Your task to perform on an android device: choose inbox layout in the gmail app Image 0: 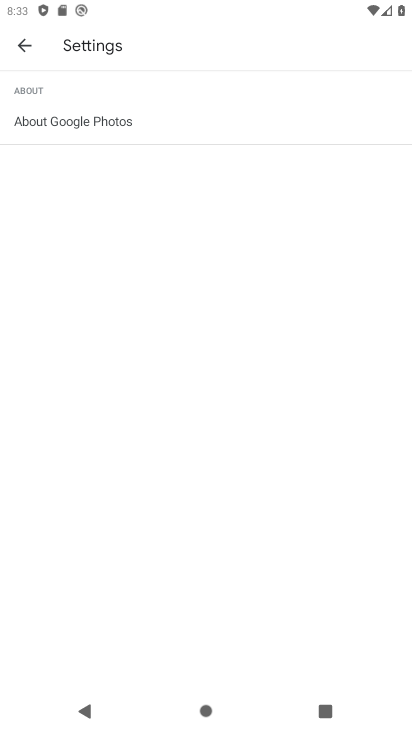
Step 0: drag from (185, 600) to (242, 104)
Your task to perform on an android device: choose inbox layout in the gmail app Image 1: 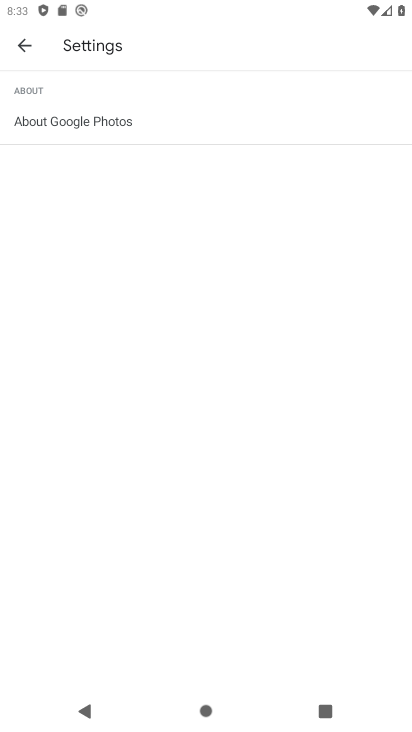
Step 1: press home button
Your task to perform on an android device: choose inbox layout in the gmail app Image 2: 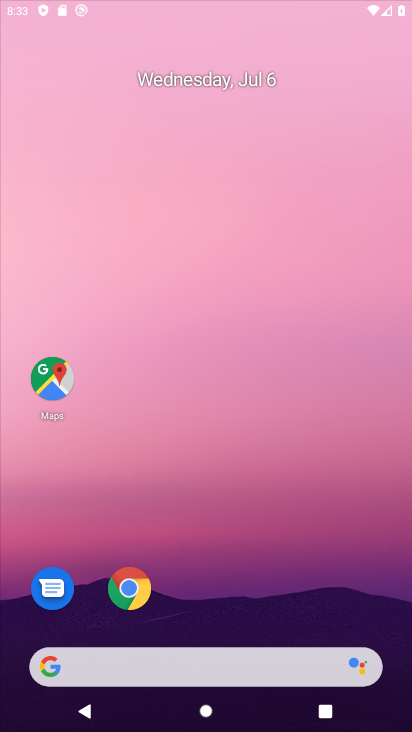
Step 2: drag from (130, 622) to (180, 179)
Your task to perform on an android device: choose inbox layout in the gmail app Image 3: 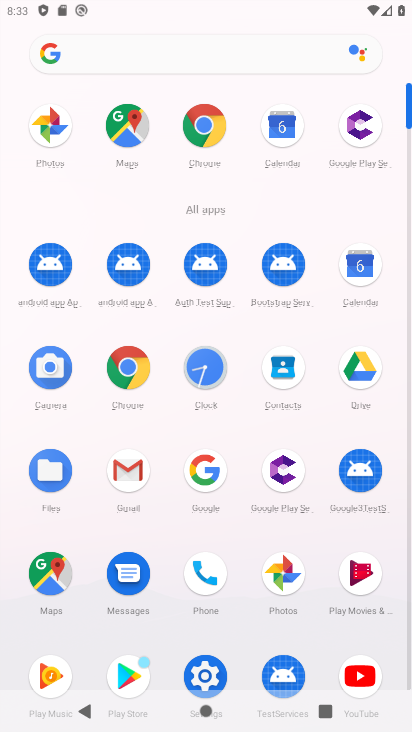
Step 3: click (114, 470)
Your task to perform on an android device: choose inbox layout in the gmail app Image 4: 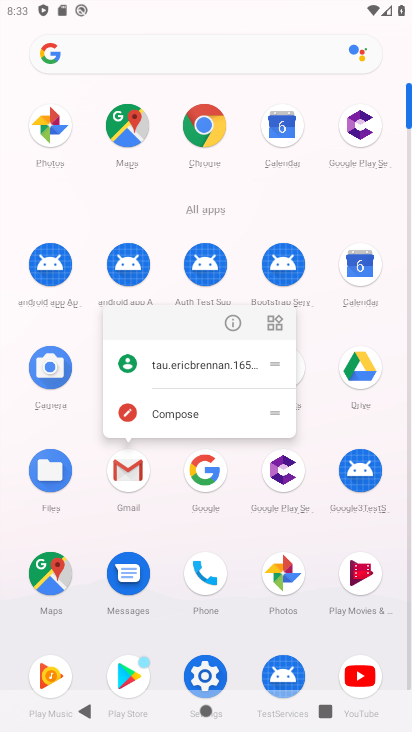
Step 4: click (234, 327)
Your task to perform on an android device: choose inbox layout in the gmail app Image 5: 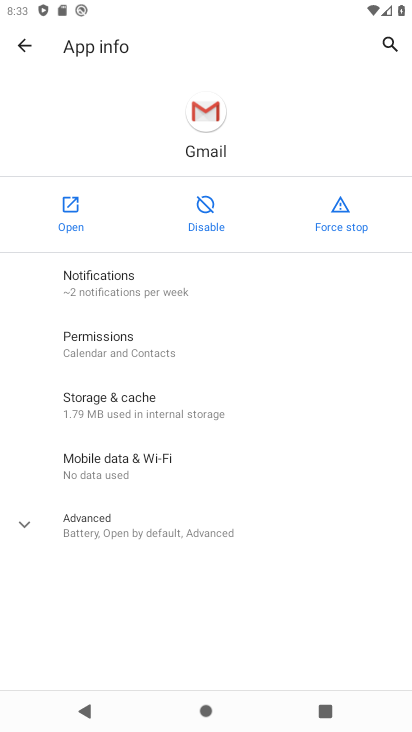
Step 5: click (70, 226)
Your task to perform on an android device: choose inbox layout in the gmail app Image 6: 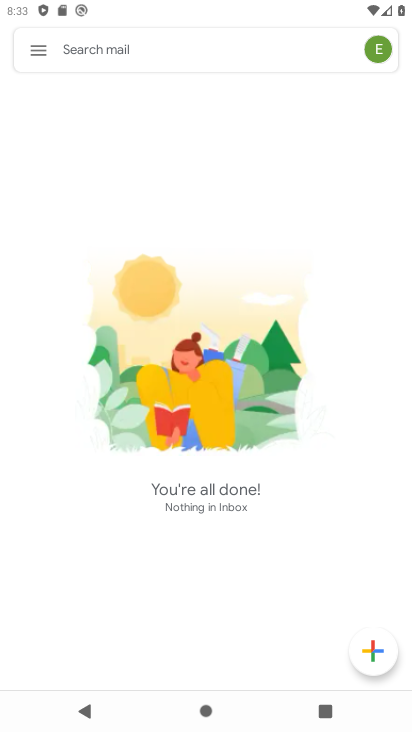
Step 6: click (44, 42)
Your task to perform on an android device: choose inbox layout in the gmail app Image 7: 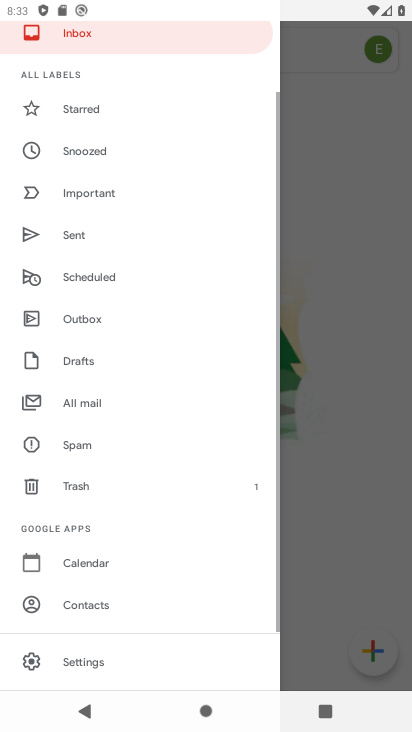
Step 7: drag from (83, 107) to (55, 680)
Your task to perform on an android device: choose inbox layout in the gmail app Image 8: 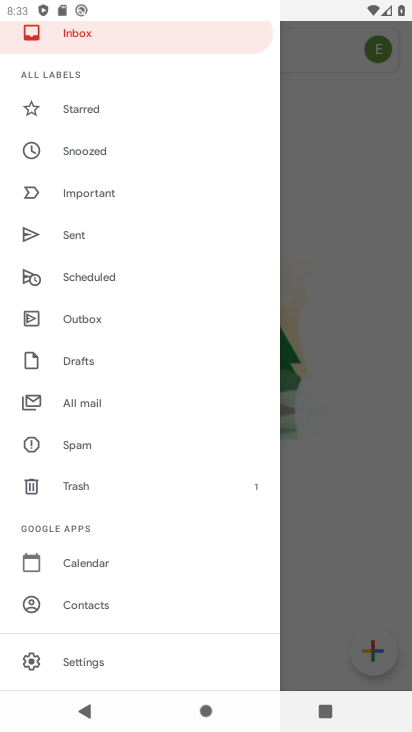
Step 8: drag from (124, 285) to (147, 722)
Your task to perform on an android device: choose inbox layout in the gmail app Image 9: 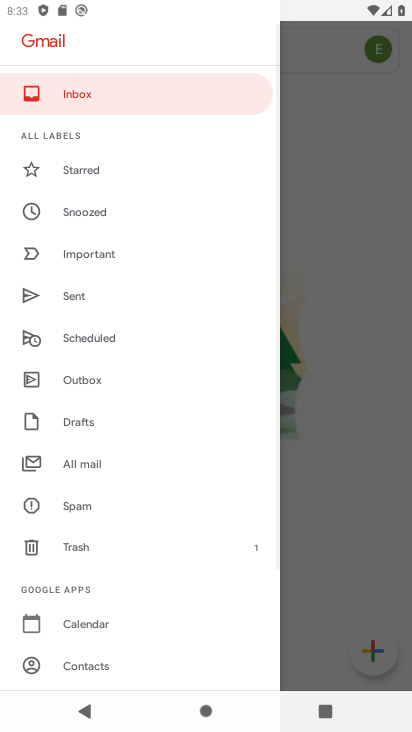
Step 9: click (94, 106)
Your task to perform on an android device: choose inbox layout in the gmail app Image 10: 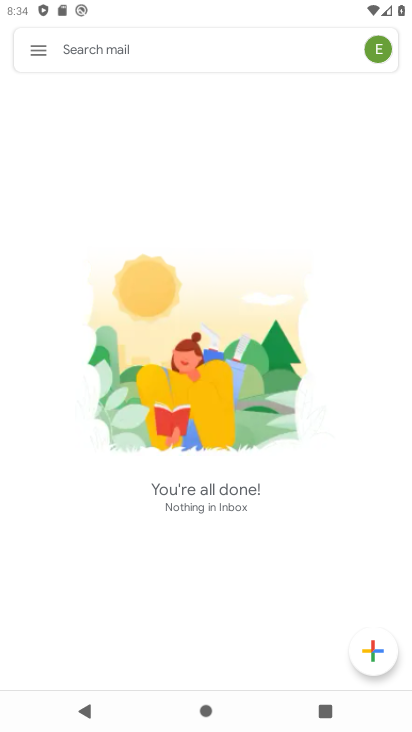
Step 10: drag from (157, 510) to (171, 250)
Your task to perform on an android device: choose inbox layout in the gmail app Image 11: 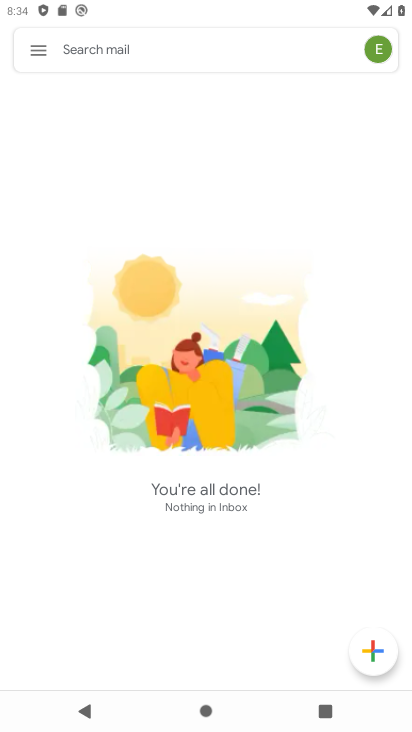
Step 11: click (155, 306)
Your task to perform on an android device: choose inbox layout in the gmail app Image 12: 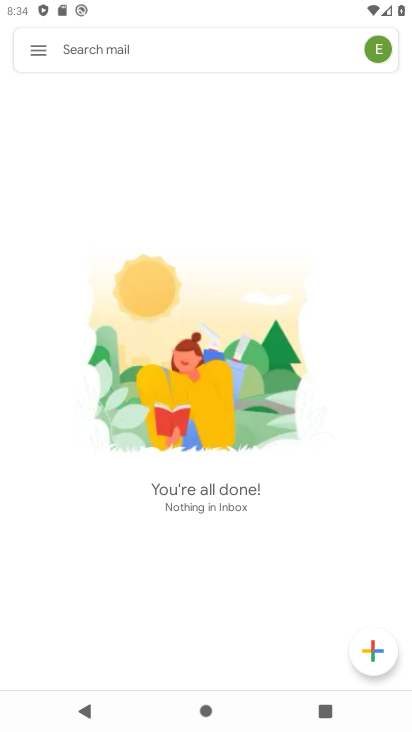
Step 12: drag from (172, 264) to (215, 85)
Your task to perform on an android device: choose inbox layout in the gmail app Image 13: 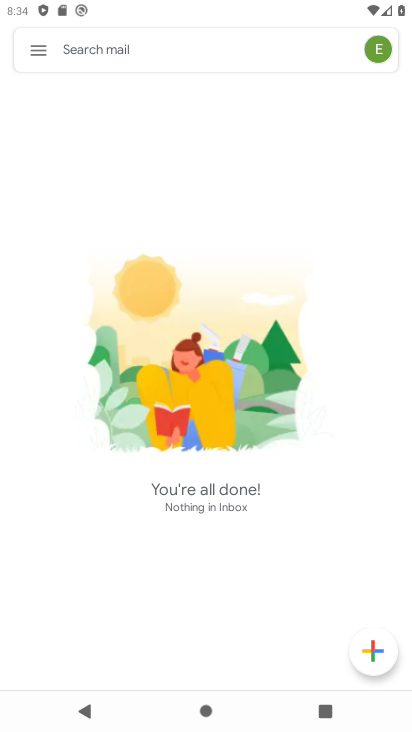
Step 13: click (41, 49)
Your task to perform on an android device: choose inbox layout in the gmail app Image 14: 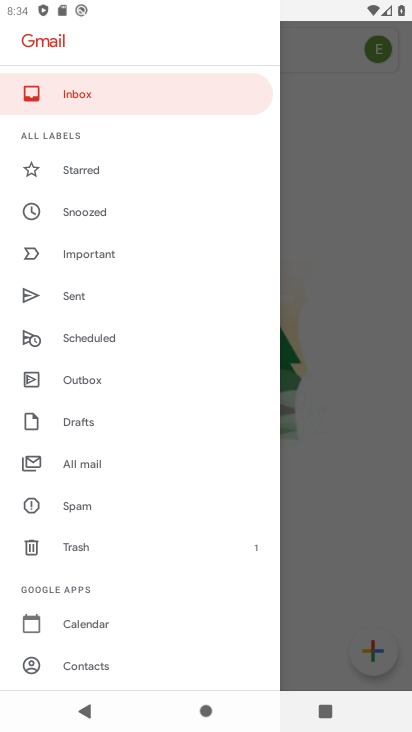
Step 14: click (309, 210)
Your task to perform on an android device: choose inbox layout in the gmail app Image 15: 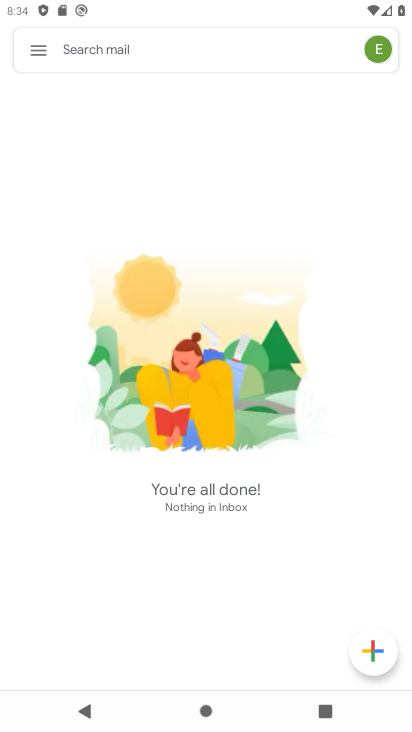
Step 15: drag from (137, 488) to (158, 329)
Your task to perform on an android device: choose inbox layout in the gmail app Image 16: 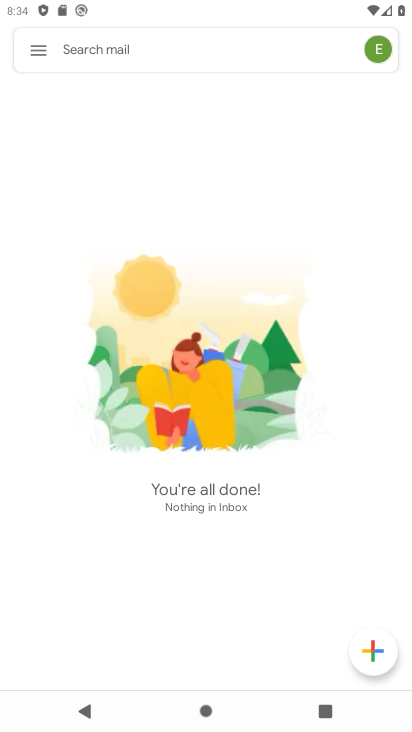
Step 16: click (49, 38)
Your task to perform on an android device: choose inbox layout in the gmail app Image 17: 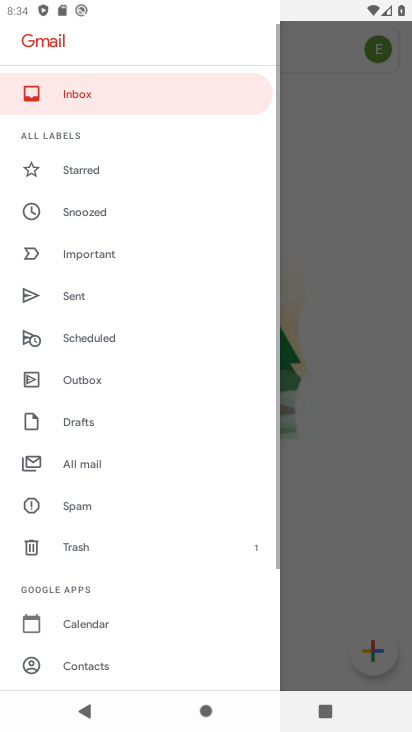
Step 17: click (105, 85)
Your task to perform on an android device: choose inbox layout in the gmail app Image 18: 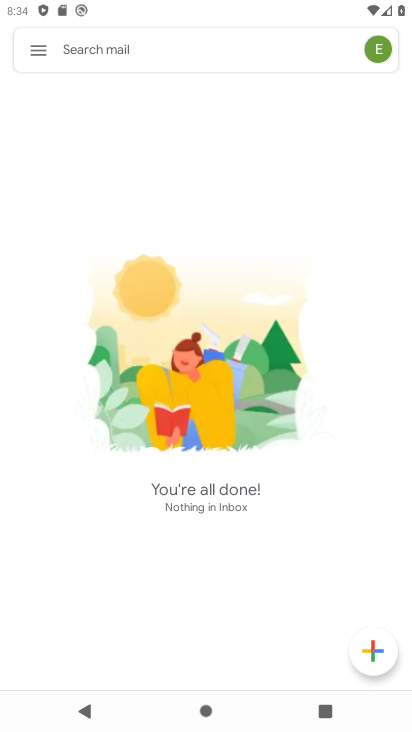
Step 18: task complete